Your task to perform on an android device: Search for vegetarian restaurants on Maps Image 0: 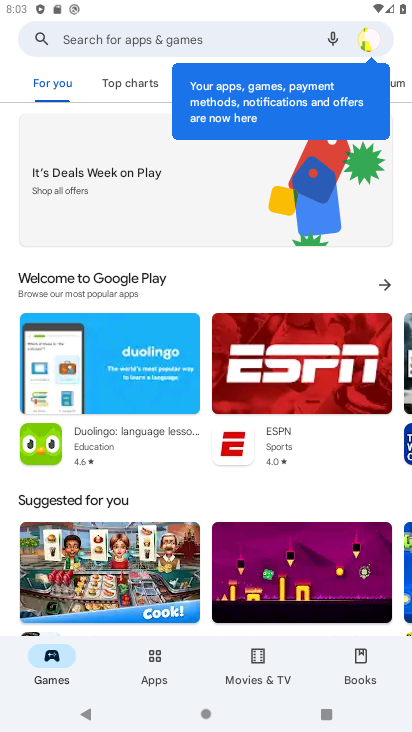
Step 0: press home button
Your task to perform on an android device: Search for vegetarian restaurants on Maps Image 1: 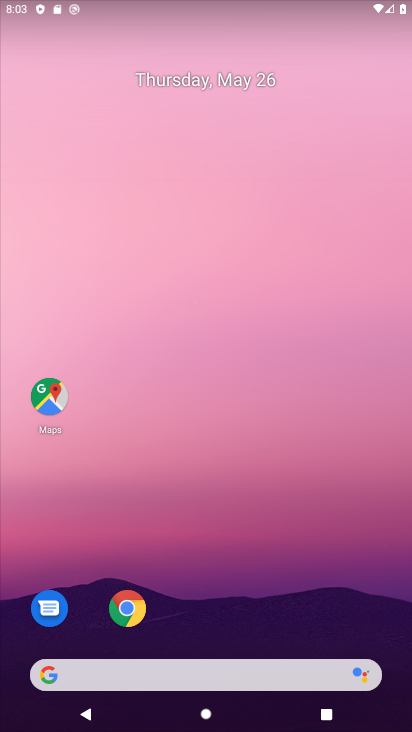
Step 1: click (55, 386)
Your task to perform on an android device: Search for vegetarian restaurants on Maps Image 2: 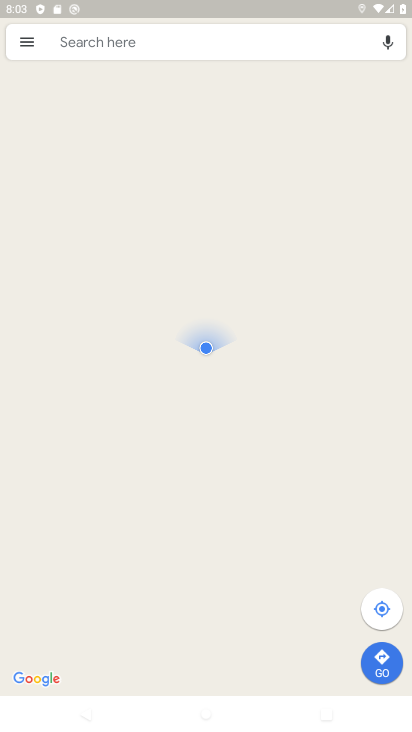
Step 2: click (302, 43)
Your task to perform on an android device: Search for vegetarian restaurants on Maps Image 3: 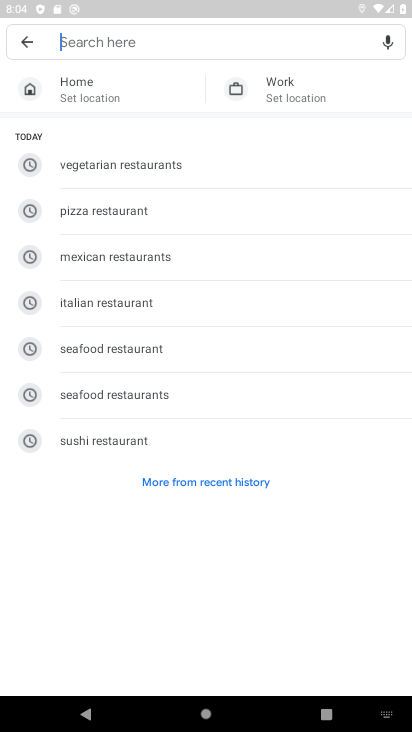
Step 3: click (140, 166)
Your task to perform on an android device: Search for vegetarian restaurants on Maps Image 4: 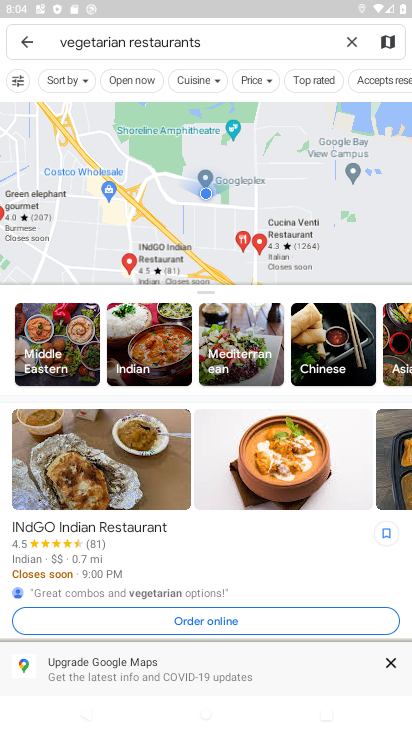
Step 4: task complete